Your task to perform on an android device: Add usb-c to usb-a to the cart on bestbuy.com Image 0: 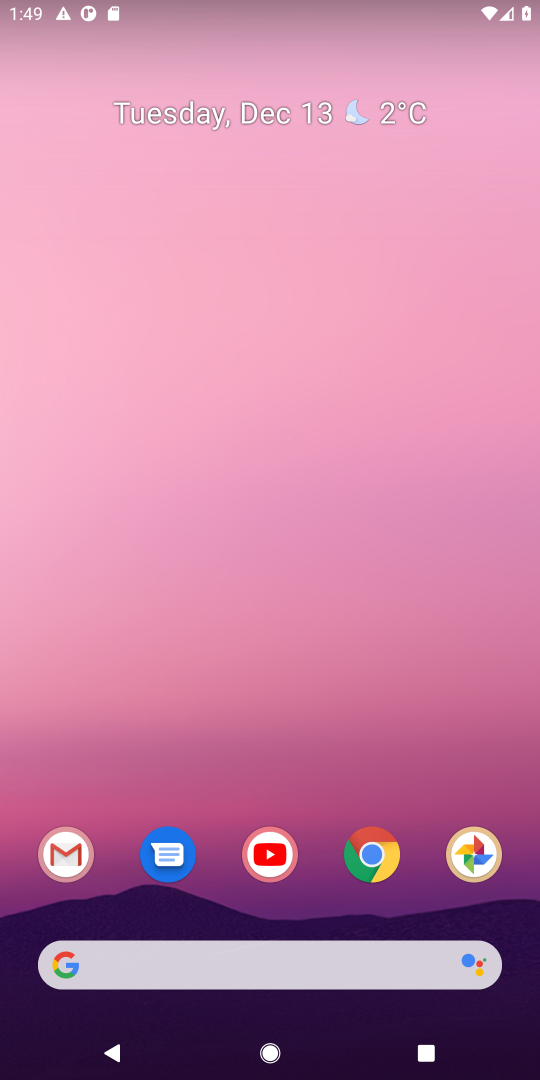
Step 0: click (216, 972)
Your task to perform on an android device: Add usb-c to usb-a to the cart on bestbuy.com Image 1: 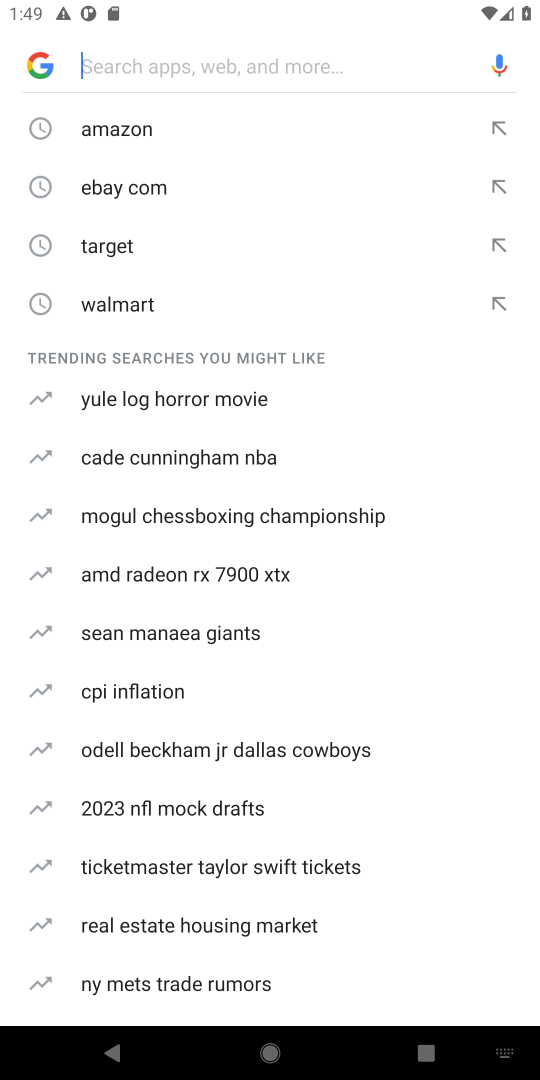
Step 1: type "bestbuy"
Your task to perform on an android device: Add usb-c to usb-a to the cart on bestbuy.com Image 2: 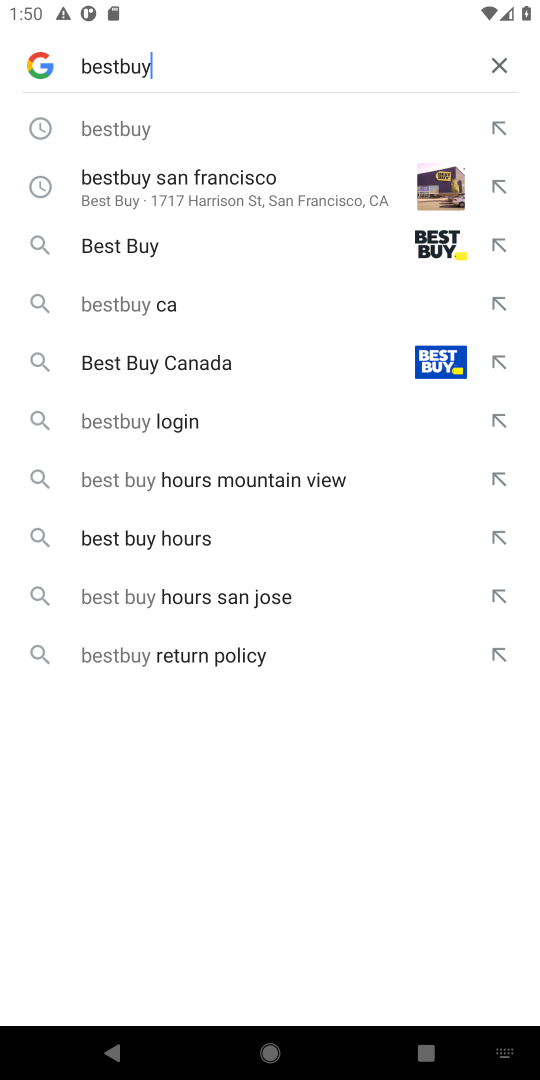
Step 2: click (91, 134)
Your task to perform on an android device: Add usb-c to usb-a to the cart on bestbuy.com Image 3: 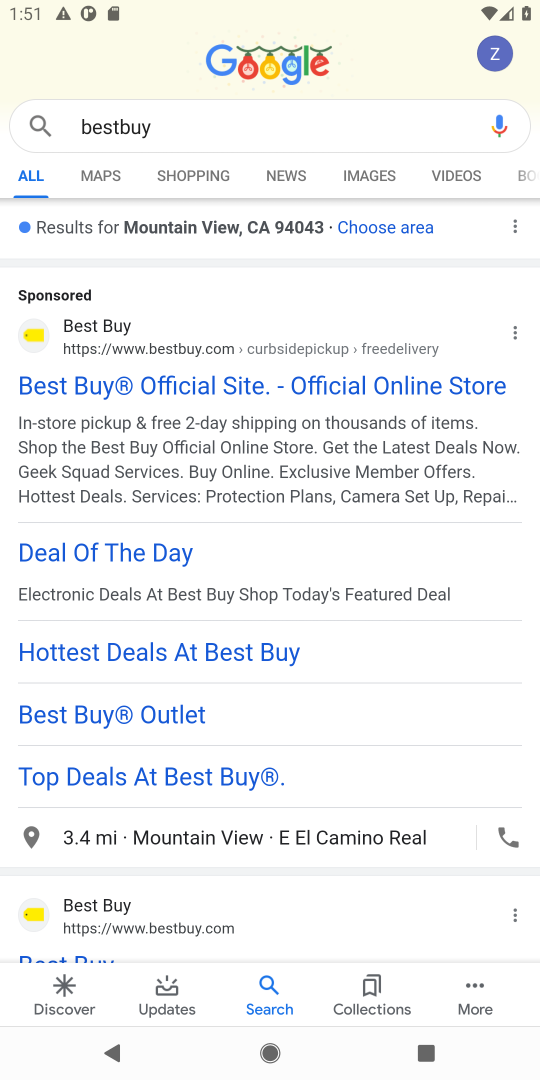
Step 3: click (235, 391)
Your task to perform on an android device: Add usb-c to usb-a to the cart on bestbuy.com Image 4: 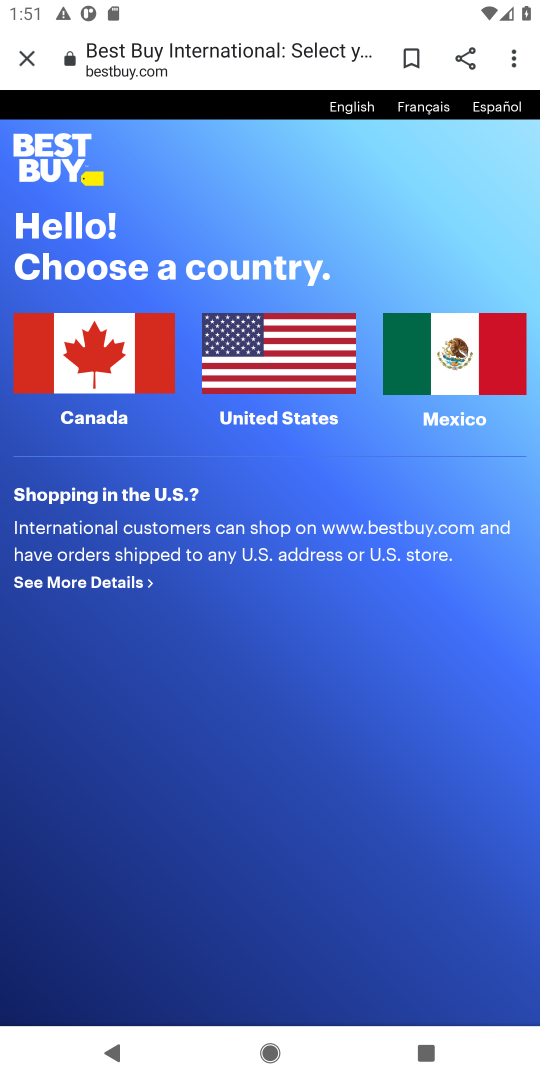
Step 4: click (52, 370)
Your task to perform on an android device: Add usb-c to usb-a to the cart on bestbuy.com Image 5: 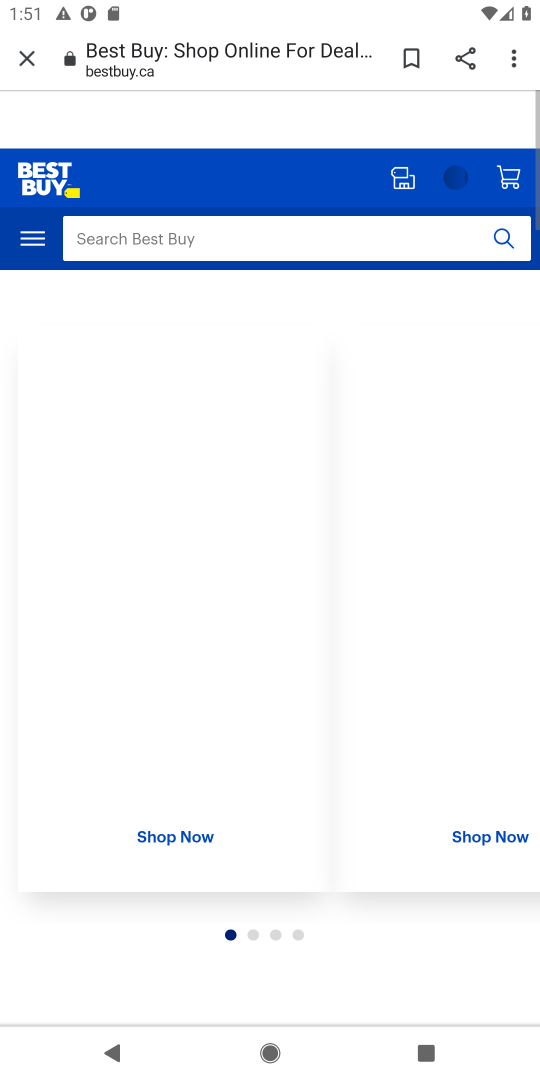
Step 5: task complete